Your task to perform on an android device: Check the news Image 0: 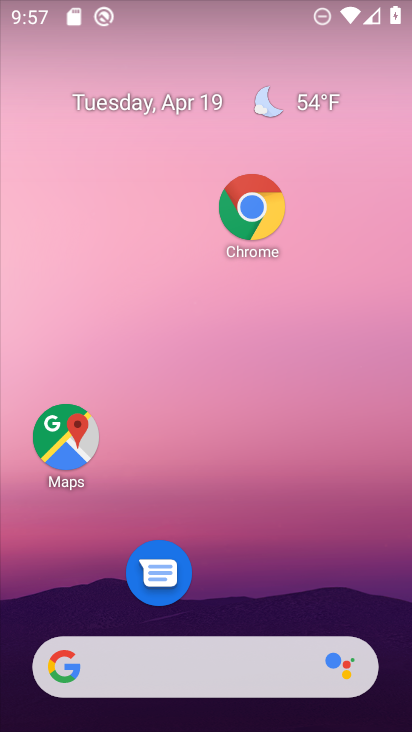
Step 0: drag from (207, 645) to (335, 335)
Your task to perform on an android device: Check the news Image 1: 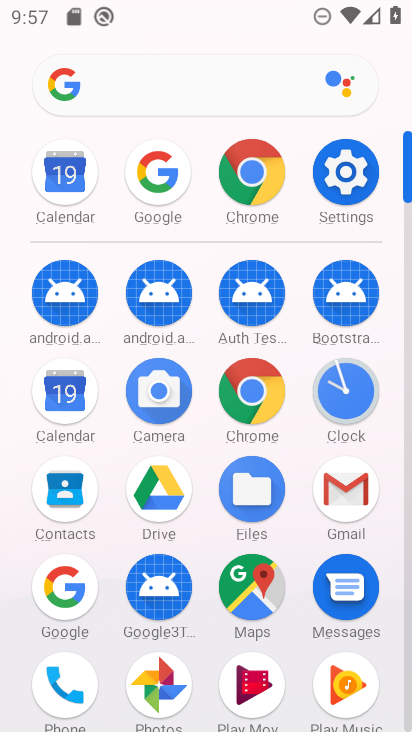
Step 1: click (155, 178)
Your task to perform on an android device: Check the news Image 2: 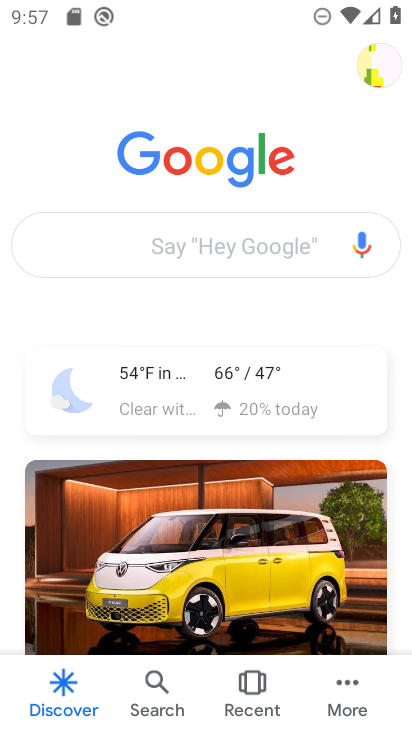
Step 2: click (167, 252)
Your task to perform on an android device: Check the news Image 3: 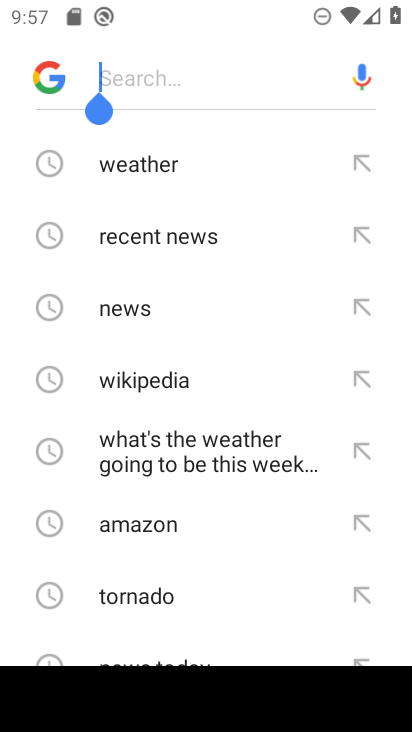
Step 3: click (144, 319)
Your task to perform on an android device: Check the news Image 4: 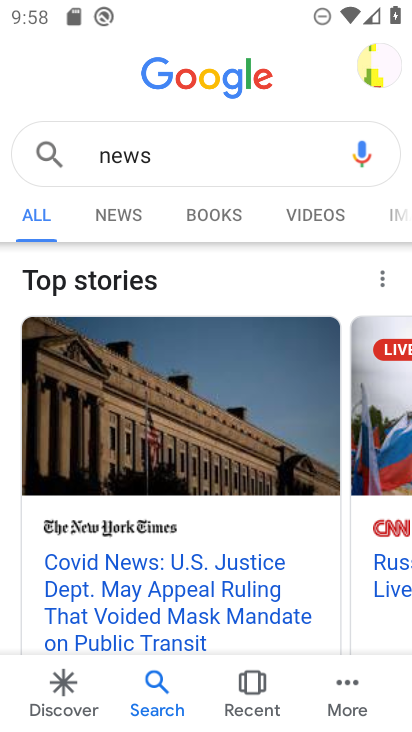
Step 4: task complete